Your task to perform on an android device: Do I have any events today? Image 0: 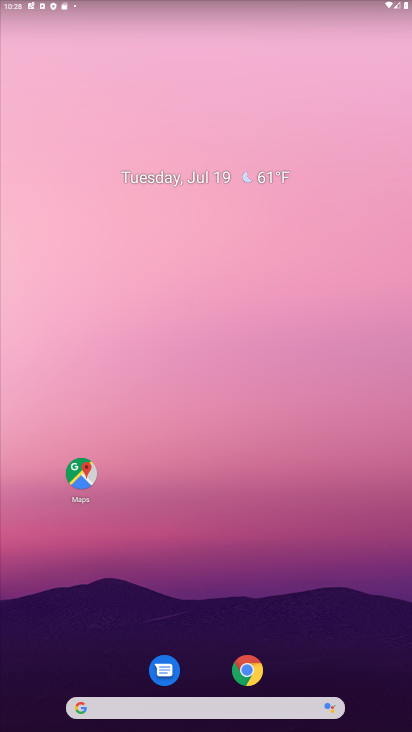
Step 0: drag from (198, 638) to (300, 61)
Your task to perform on an android device: Do I have any events today? Image 1: 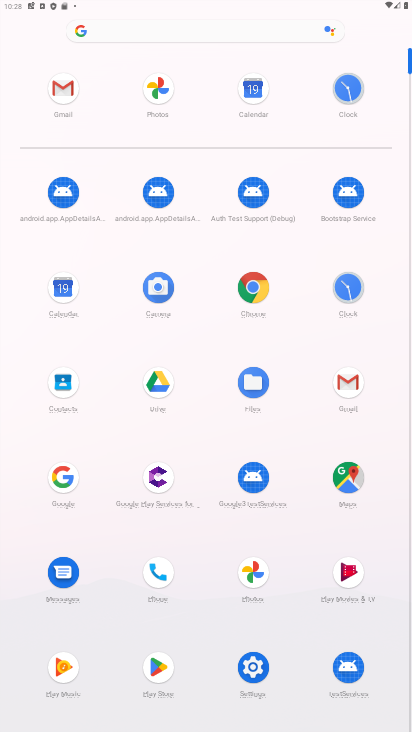
Step 1: click (257, 101)
Your task to perform on an android device: Do I have any events today? Image 2: 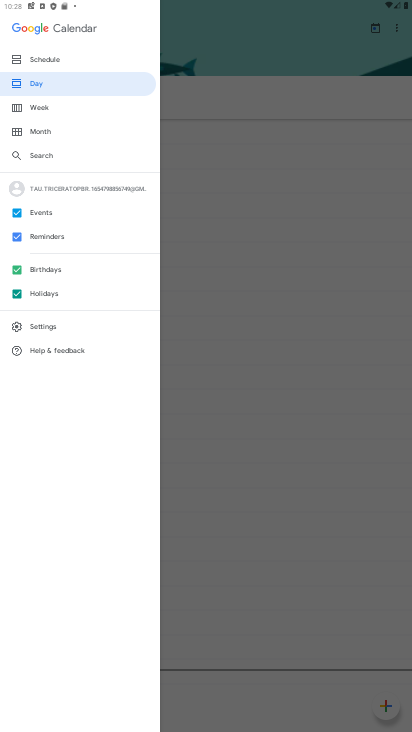
Step 2: click (256, 99)
Your task to perform on an android device: Do I have any events today? Image 3: 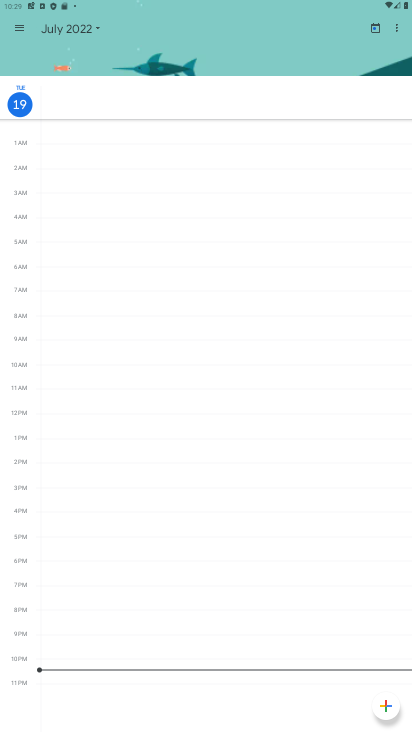
Step 3: click (53, 27)
Your task to perform on an android device: Do I have any events today? Image 4: 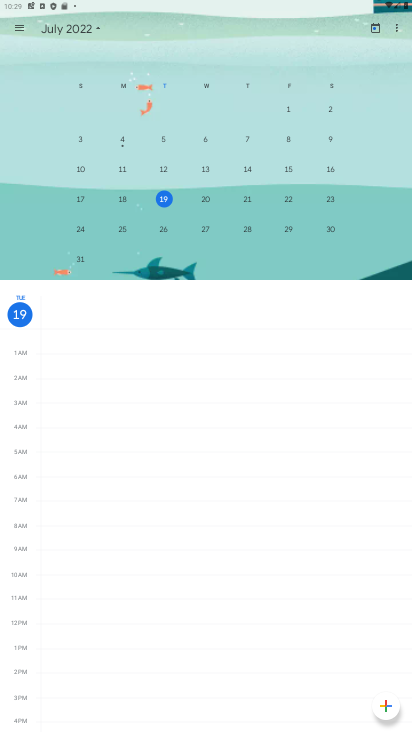
Step 4: click (166, 202)
Your task to perform on an android device: Do I have any events today? Image 5: 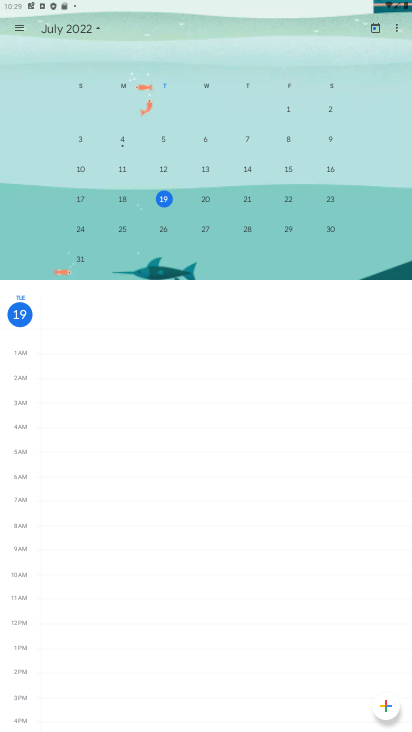
Step 5: click (166, 202)
Your task to perform on an android device: Do I have any events today? Image 6: 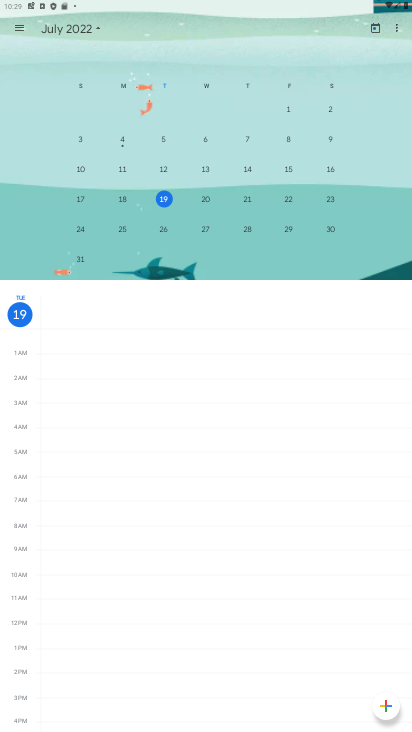
Step 6: task complete